Your task to perform on an android device: change alarm snooze length Image 0: 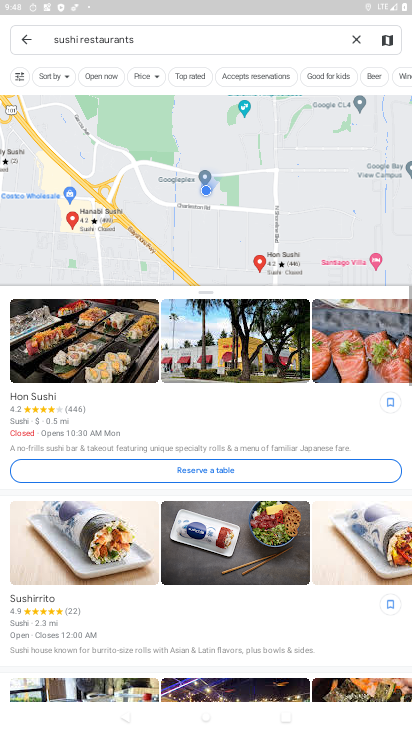
Step 0: press home button
Your task to perform on an android device: change alarm snooze length Image 1: 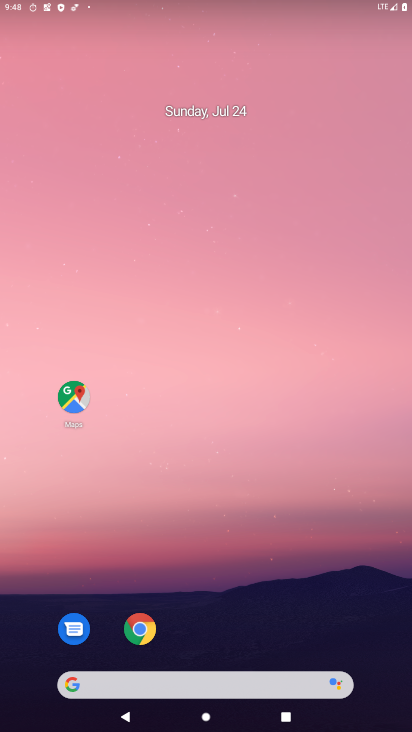
Step 1: drag from (291, 631) to (269, 117)
Your task to perform on an android device: change alarm snooze length Image 2: 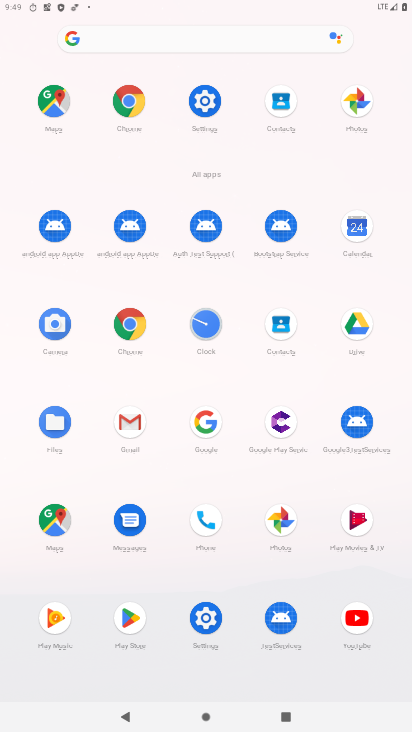
Step 2: click (206, 319)
Your task to perform on an android device: change alarm snooze length Image 3: 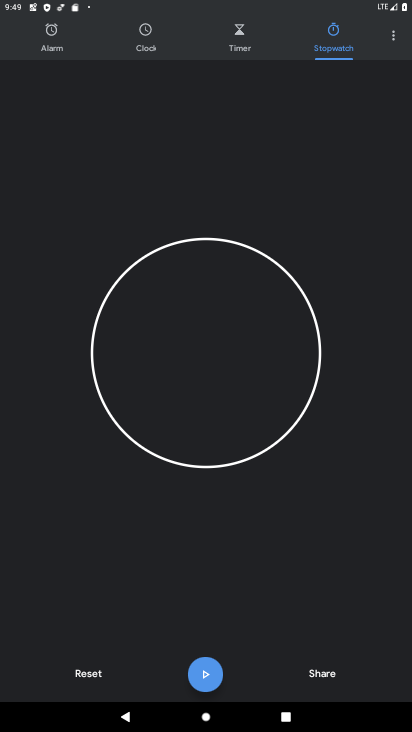
Step 3: click (391, 35)
Your task to perform on an android device: change alarm snooze length Image 4: 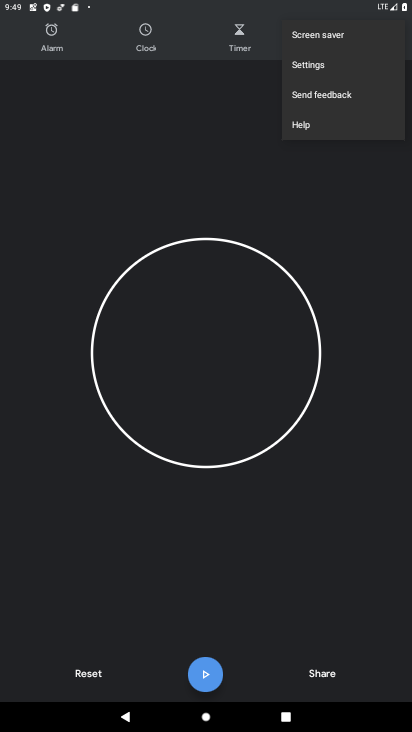
Step 4: click (322, 62)
Your task to perform on an android device: change alarm snooze length Image 5: 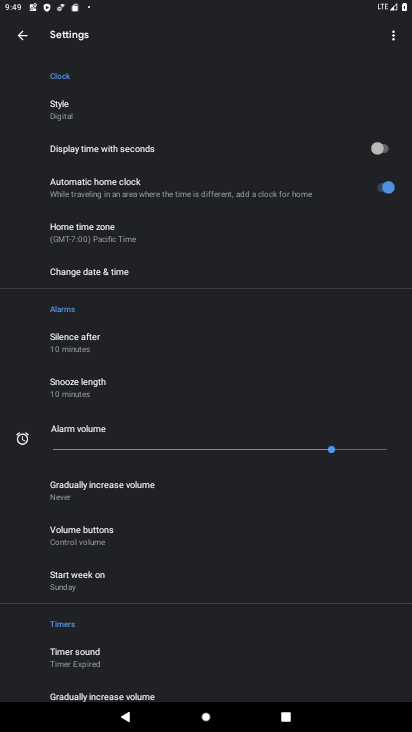
Step 5: click (92, 391)
Your task to perform on an android device: change alarm snooze length Image 6: 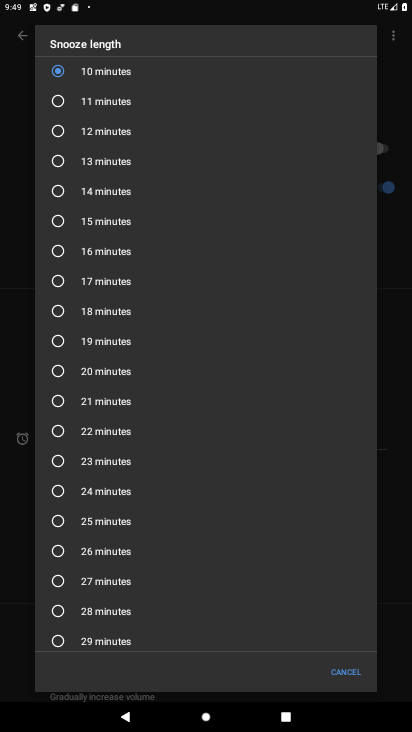
Step 6: click (55, 374)
Your task to perform on an android device: change alarm snooze length Image 7: 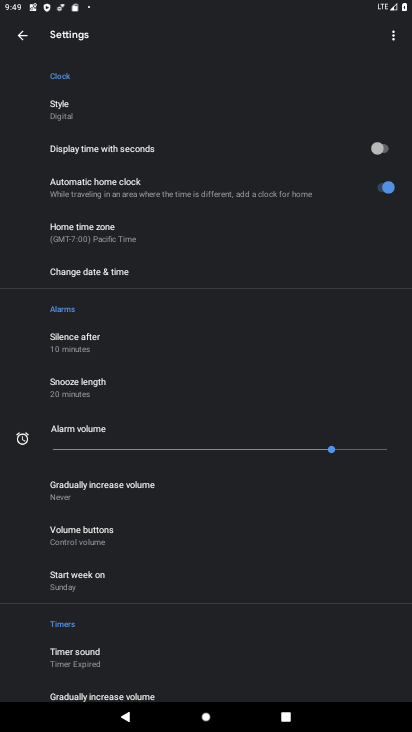
Step 7: task complete